Your task to perform on an android device: make emails show in primary in the gmail app Image 0: 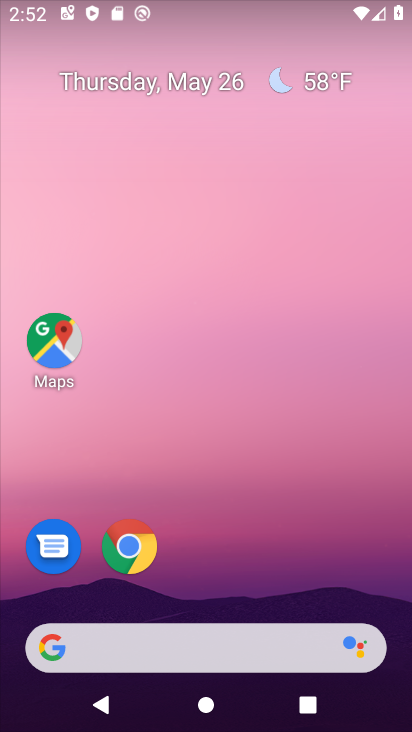
Step 0: drag from (207, 573) to (204, 160)
Your task to perform on an android device: make emails show in primary in the gmail app Image 1: 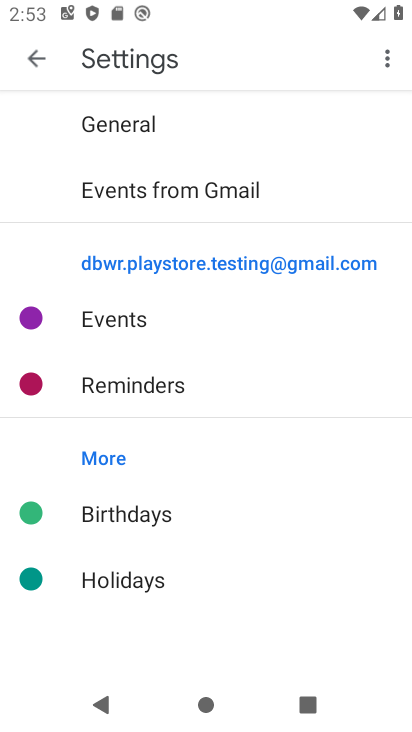
Step 1: press home button
Your task to perform on an android device: make emails show in primary in the gmail app Image 2: 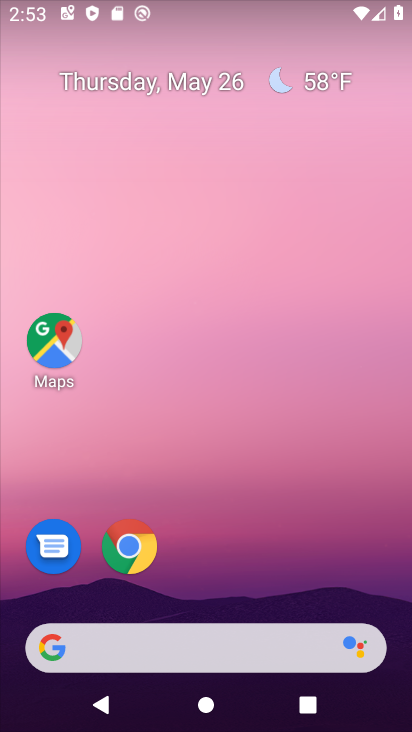
Step 2: drag from (174, 589) to (141, 103)
Your task to perform on an android device: make emails show in primary in the gmail app Image 3: 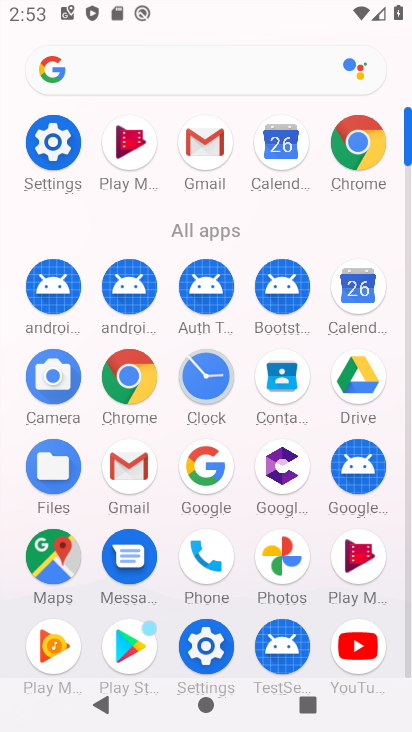
Step 3: click (211, 144)
Your task to perform on an android device: make emails show in primary in the gmail app Image 4: 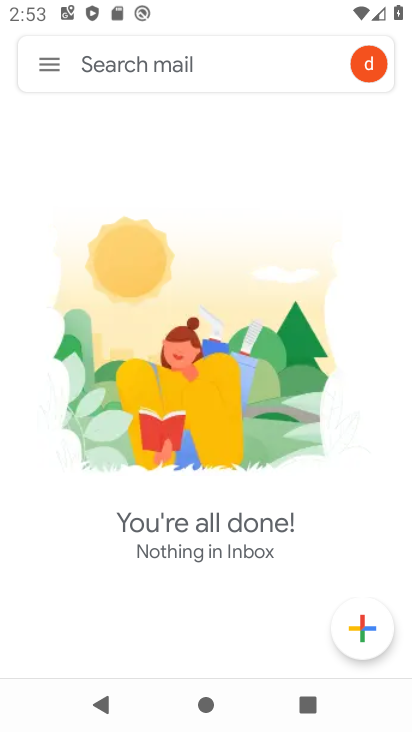
Step 4: click (43, 68)
Your task to perform on an android device: make emails show in primary in the gmail app Image 5: 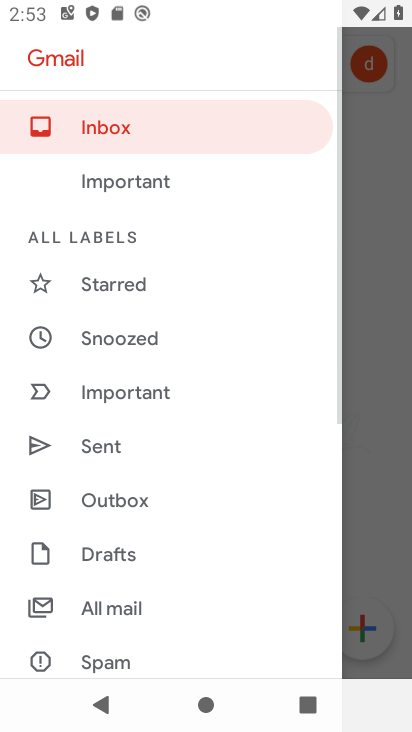
Step 5: drag from (112, 621) to (112, 295)
Your task to perform on an android device: make emails show in primary in the gmail app Image 6: 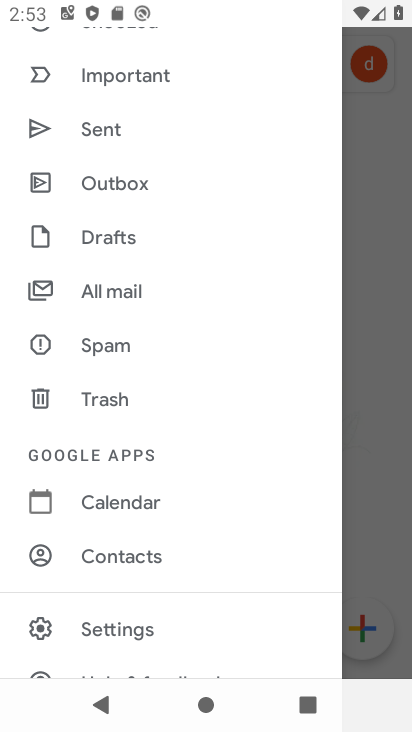
Step 6: click (159, 625)
Your task to perform on an android device: make emails show in primary in the gmail app Image 7: 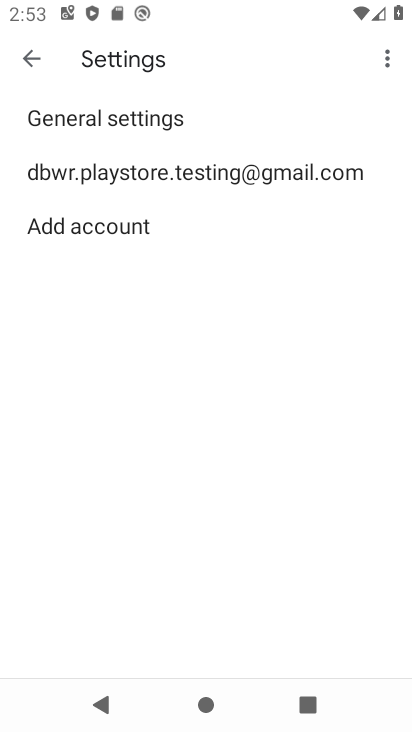
Step 7: click (161, 164)
Your task to perform on an android device: make emails show in primary in the gmail app Image 8: 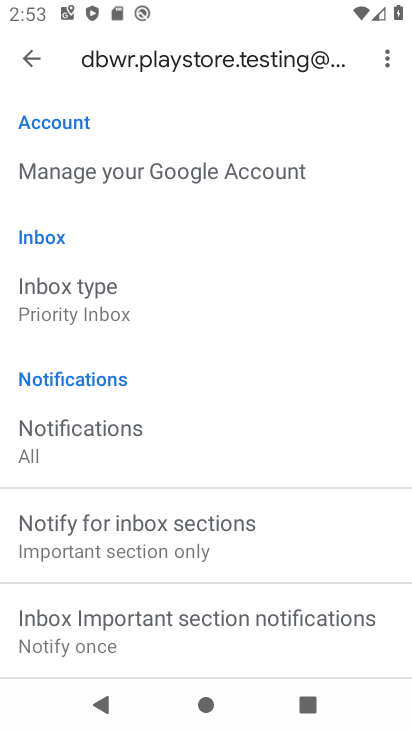
Step 8: click (140, 299)
Your task to perform on an android device: make emails show in primary in the gmail app Image 9: 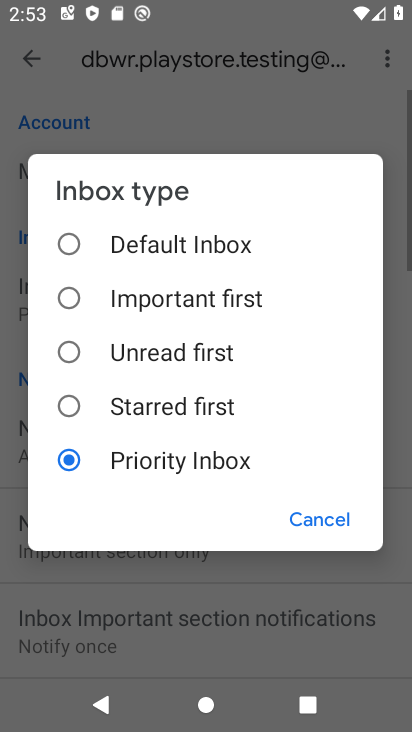
Step 9: click (80, 245)
Your task to perform on an android device: make emails show in primary in the gmail app Image 10: 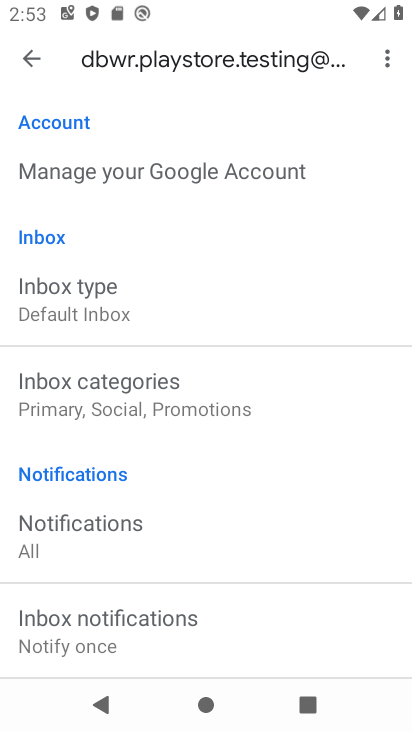
Step 10: task complete